Your task to perform on an android device: What's the weather going to be tomorrow? Image 0: 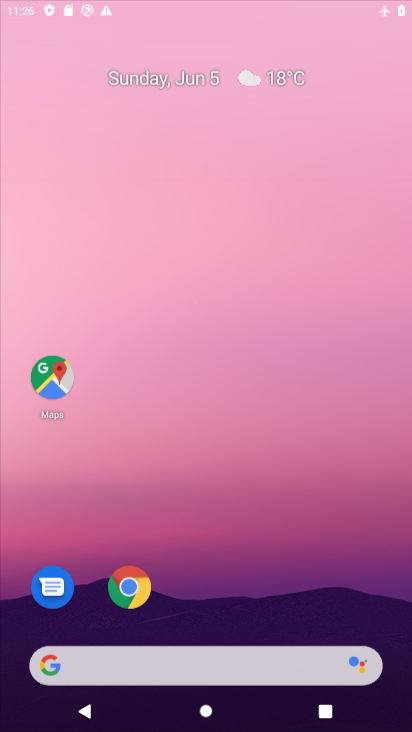
Step 0: click (132, 603)
Your task to perform on an android device: What's the weather going to be tomorrow? Image 1: 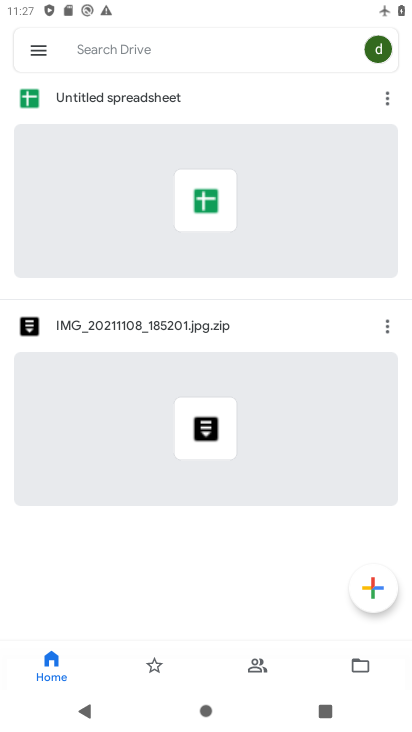
Step 1: press home button
Your task to perform on an android device: What's the weather going to be tomorrow? Image 2: 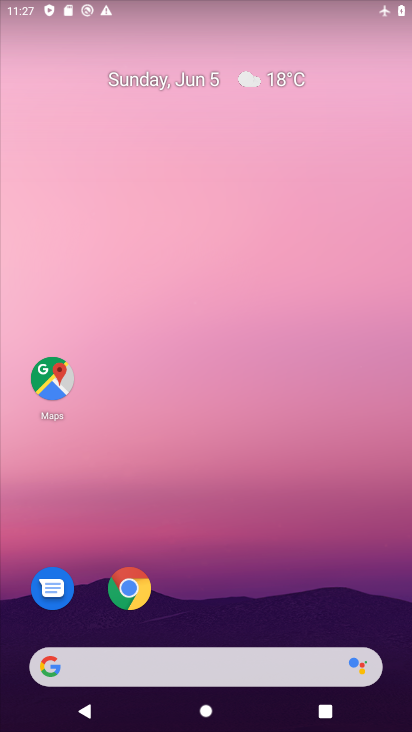
Step 2: click (261, 660)
Your task to perform on an android device: What's the weather going to be tomorrow? Image 3: 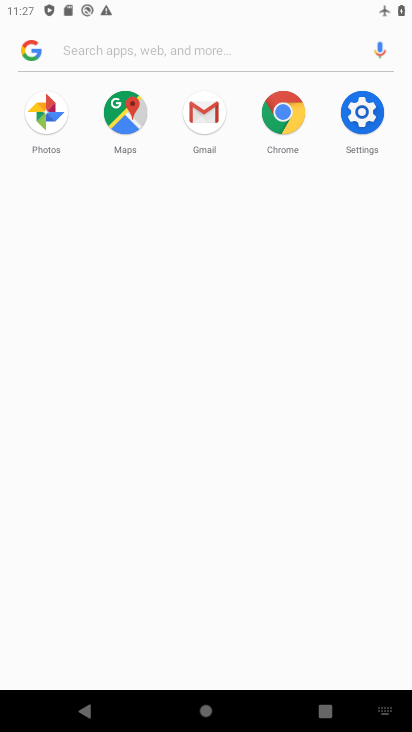
Step 3: type "What's the weather going to be tomorrow?"
Your task to perform on an android device: What's the weather going to be tomorrow? Image 4: 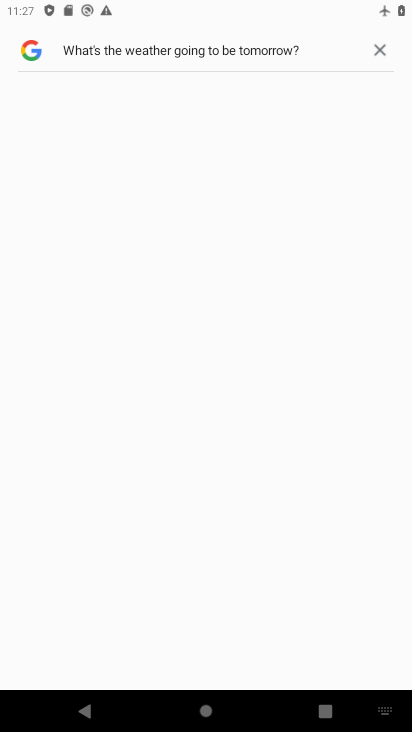
Step 4: press enter
Your task to perform on an android device: What's the weather going to be tomorrow? Image 5: 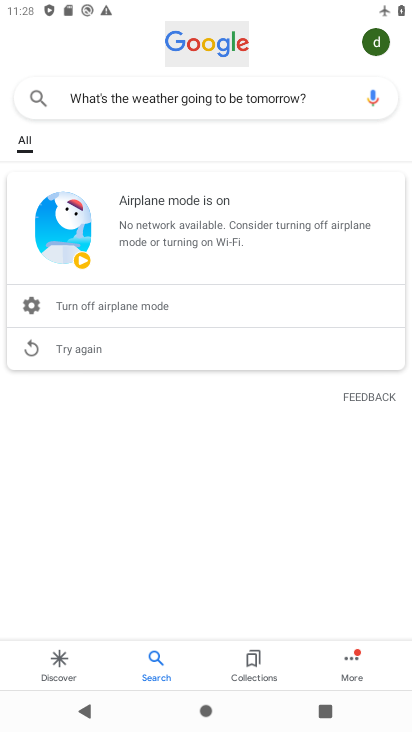
Step 5: task complete